Your task to perform on an android device: Go to Google Image 0: 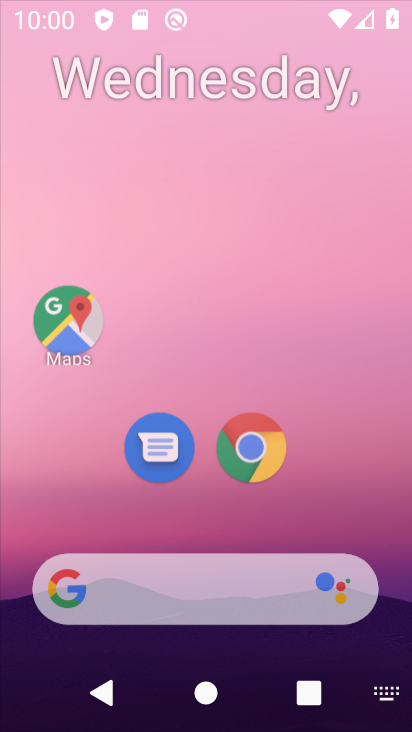
Step 0: press home button
Your task to perform on an android device: Go to Google Image 1: 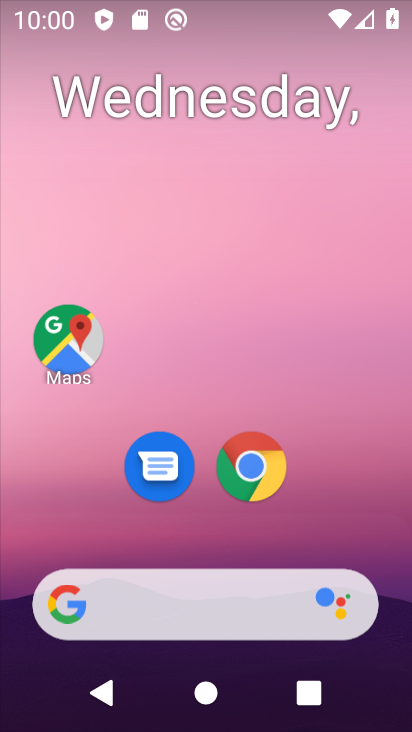
Step 1: drag from (214, 8) to (235, 569)
Your task to perform on an android device: Go to Google Image 2: 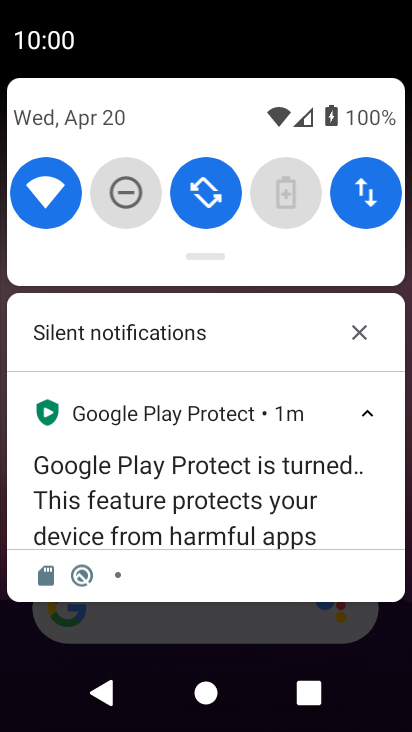
Step 2: click (260, 629)
Your task to perform on an android device: Go to Google Image 3: 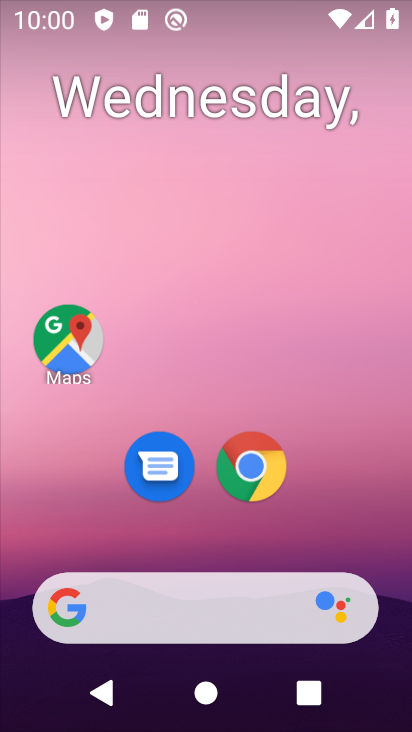
Step 3: drag from (206, 541) to (247, 128)
Your task to perform on an android device: Go to Google Image 4: 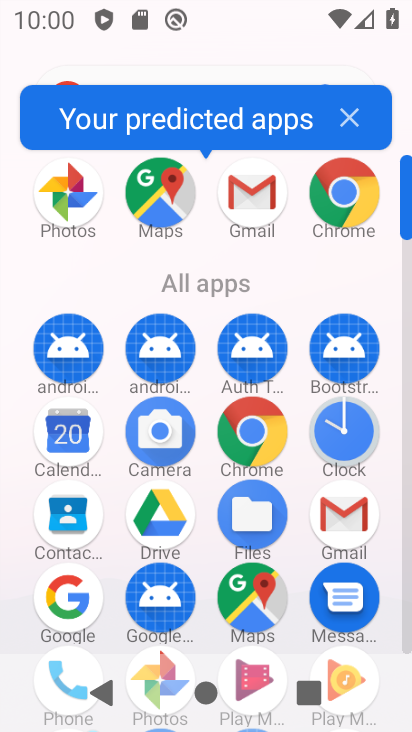
Step 4: click (71, 582)
Your task to perform on an android device: Go to Google Image 5: 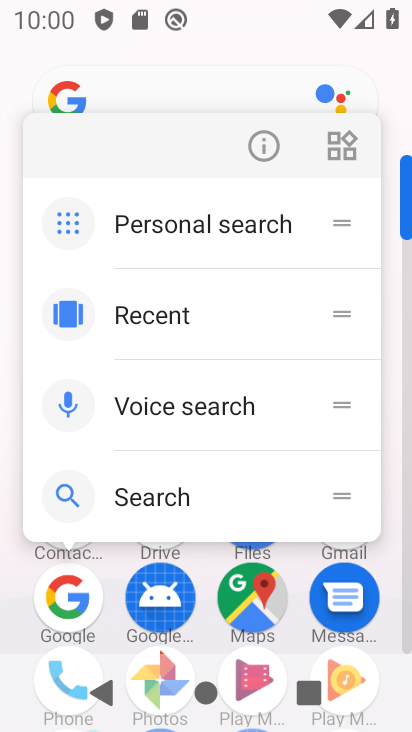
Step 5: click (65, 590)
Your task to perform on an android device: Go to Google Image 6: 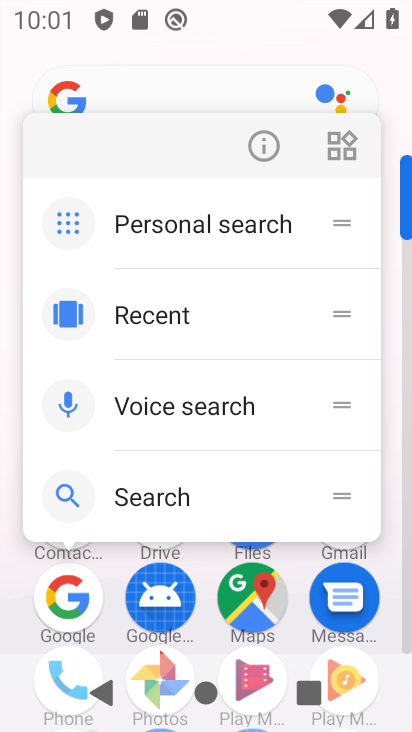
Step 6: click (61, 596)
Your task to perform on an android device: Go to Google Image 7: 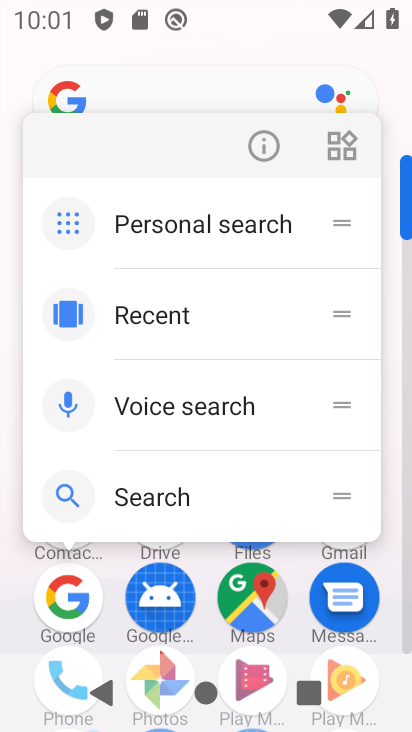
Step 7: click (64, 594)
Your task to perform on an android device: Go to Google Image 8: 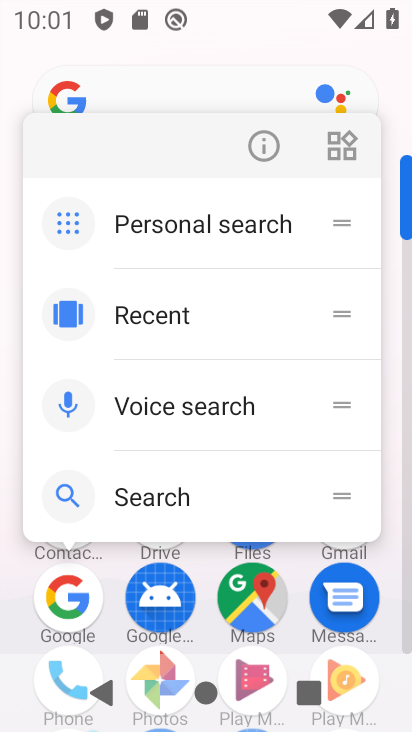
Step 8: click (72, 594)
Your task to perform on an android device: Go to Google Image 9: 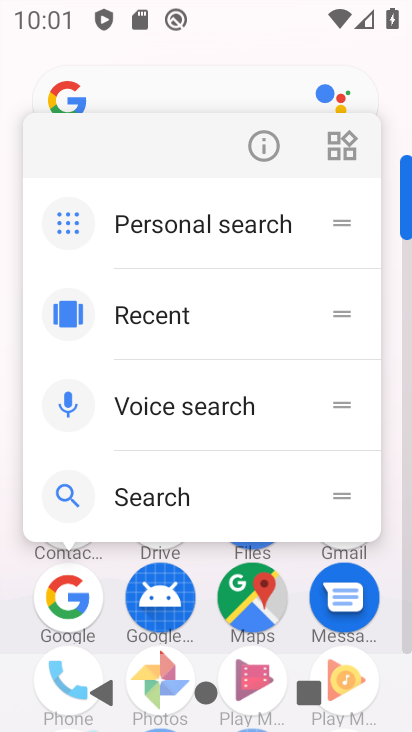
Step 9: click (73, 593)
Your task to perform on an android device: Go to Google Image 10: 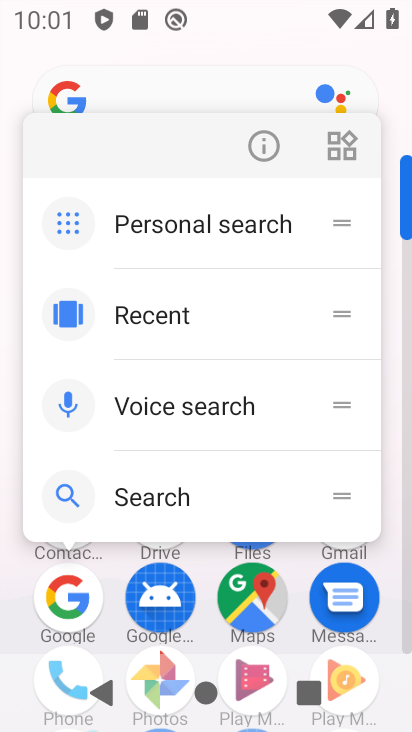
Step 10: click (16, 572)
Your task to perform on an android device: Go to Google Image 11: 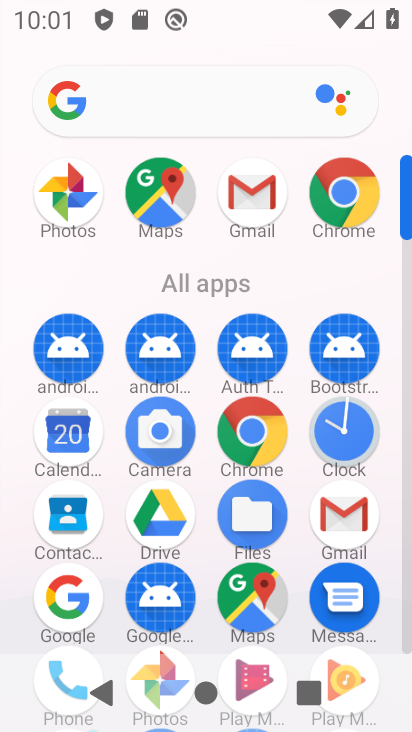
Step 11: click (65, 599)
Your task to perform on an android device: Go to Google Image 12: 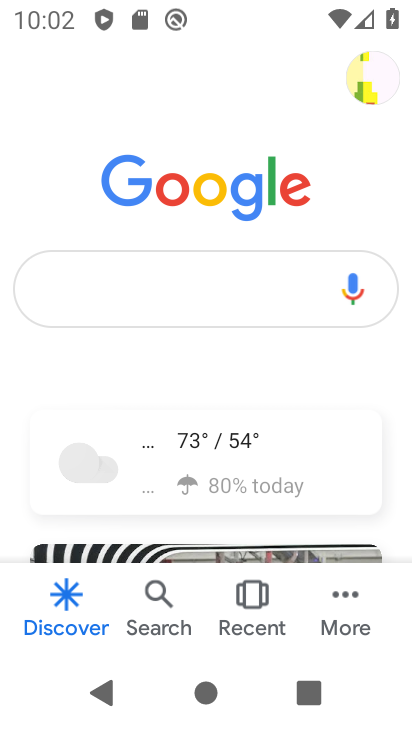
Step 12: task complete